Your task to perform on an android device: open a bookmark in the chrome app Image 0: 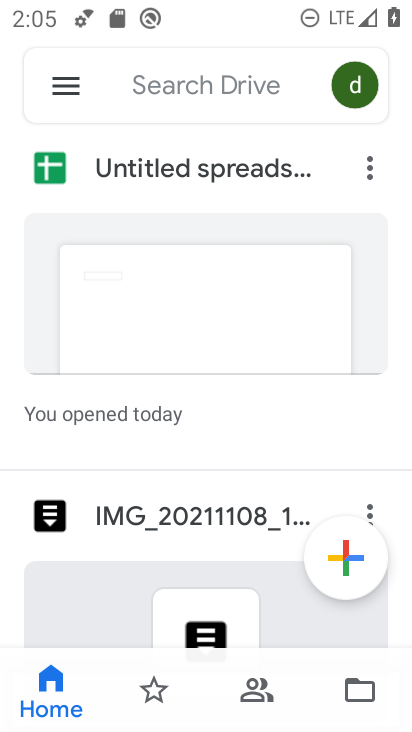
Step 0: press home button
Your task to perform on an android device: open a bookmark in the chrome app Image 1: 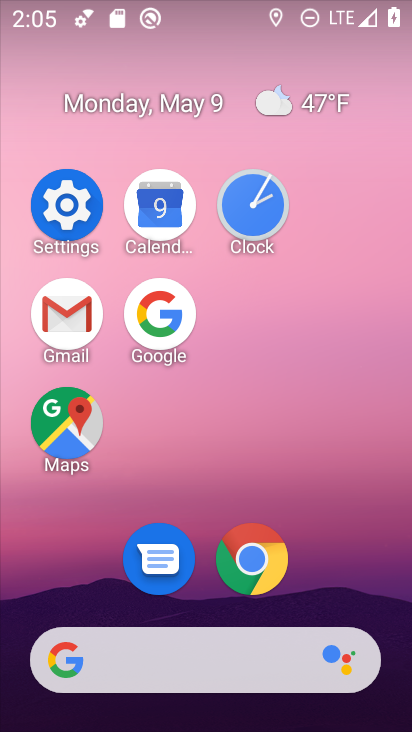
Step 1: click (273, 584)
Your task to perform on an android device: open a bookmark in the chrome app Image 2: 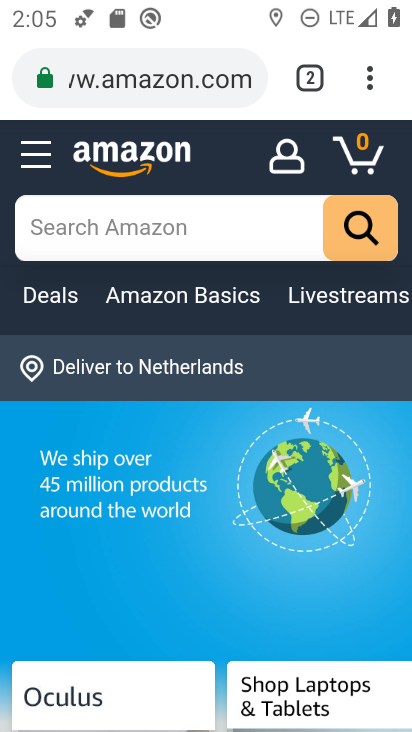
Step 2: click (366, 79)
Your task to perform on an android device: open a bookmark in the chrome app Image 3: 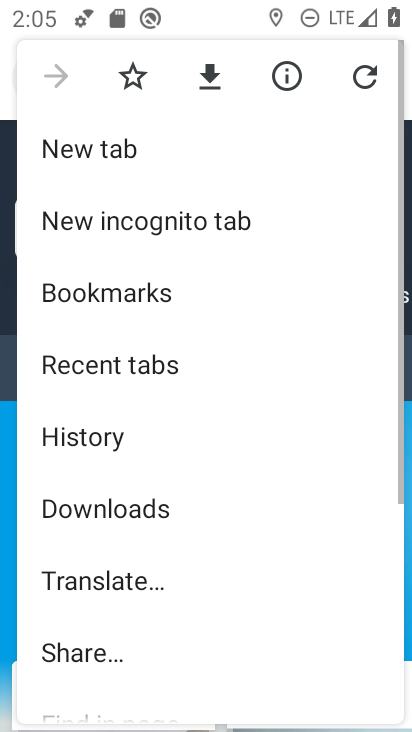
Step 3: click (260, 282)
Your task to perform on an android device: open a bookmark in the chrome app Image 4: 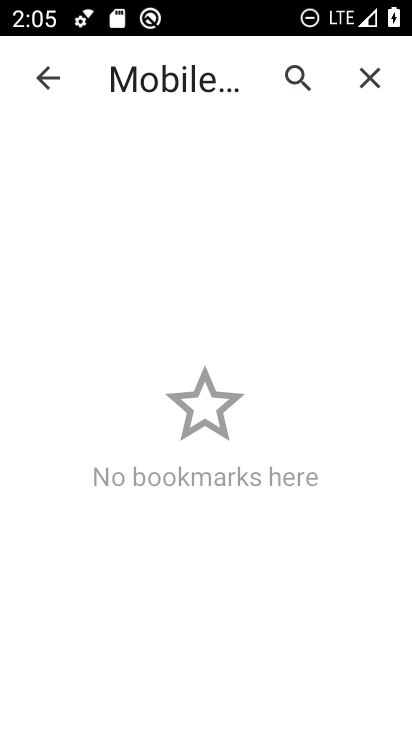
Step 4: task complete